Your task to perform on an android device: Open Google Maps and go to "Timeline" Image 0: 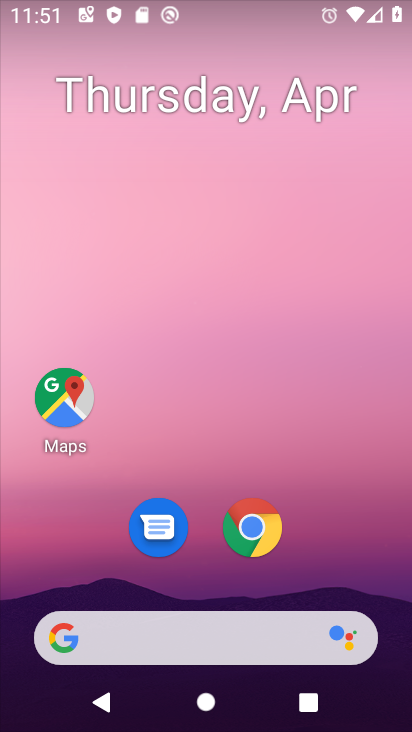
Step 0: click (76, 408)
Your task to perform on an android device: Open Google Maps and go to "Timeline" Image 1: 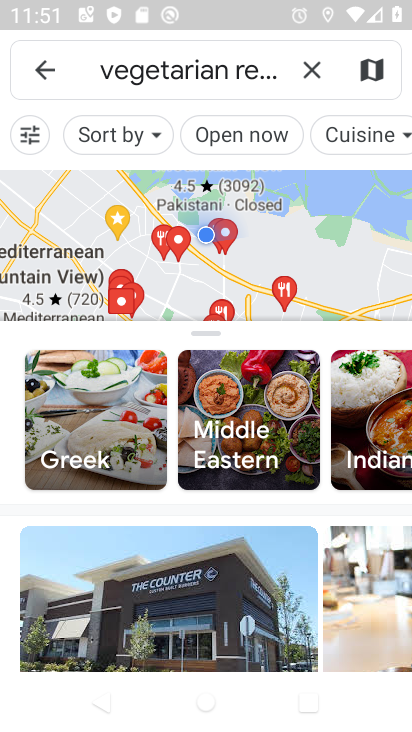
Step 1: click (36, 76)
Your task to perform on an android device: Open Google Maps and go to "Timeline" Image 2: 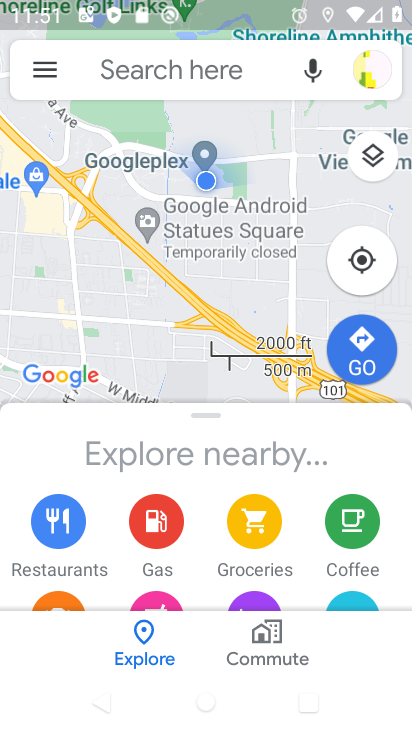
Step 2: click (36, 76)
Your task to perform on an android device: Open Google Maps and go to "Timeline" Image 3: 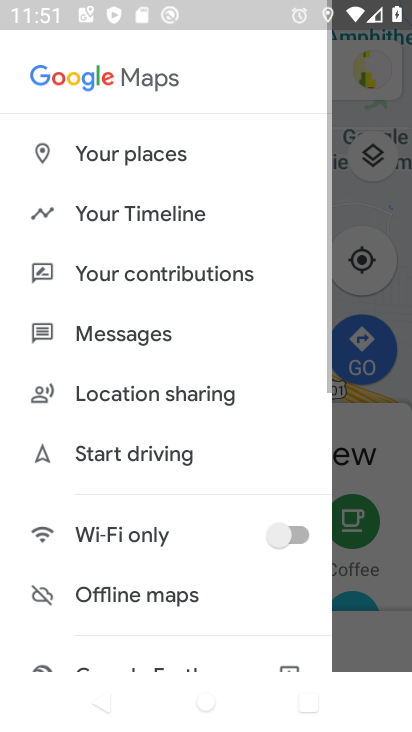
Step 3: click (117, 218)
Your task to perform on an android device: Open Google Maps and go to "Timeline" Image 4: 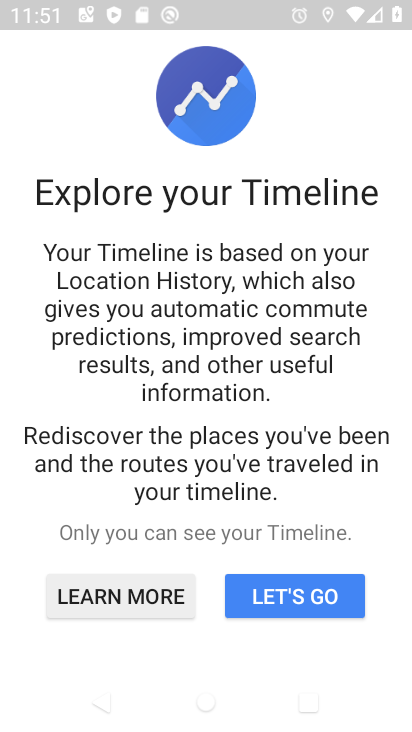
Step 4: click (303, 596)
Your task to perform on an android device: Open Google Maps and go to "Timeline" Image 5: 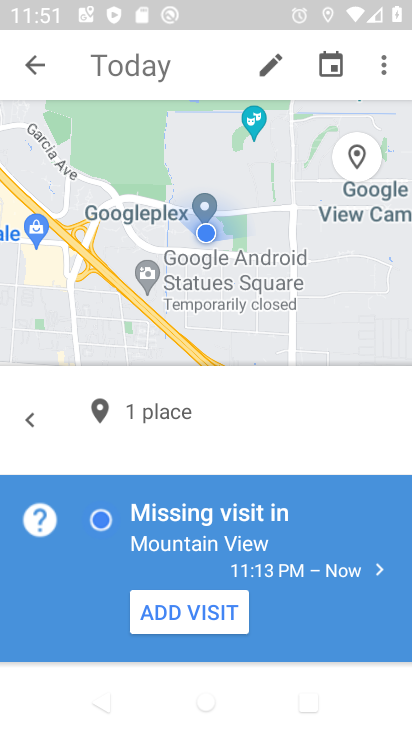
Step 5: task complete